Your task to perform on an android device: View the shopping cart on target.com. Image 0: 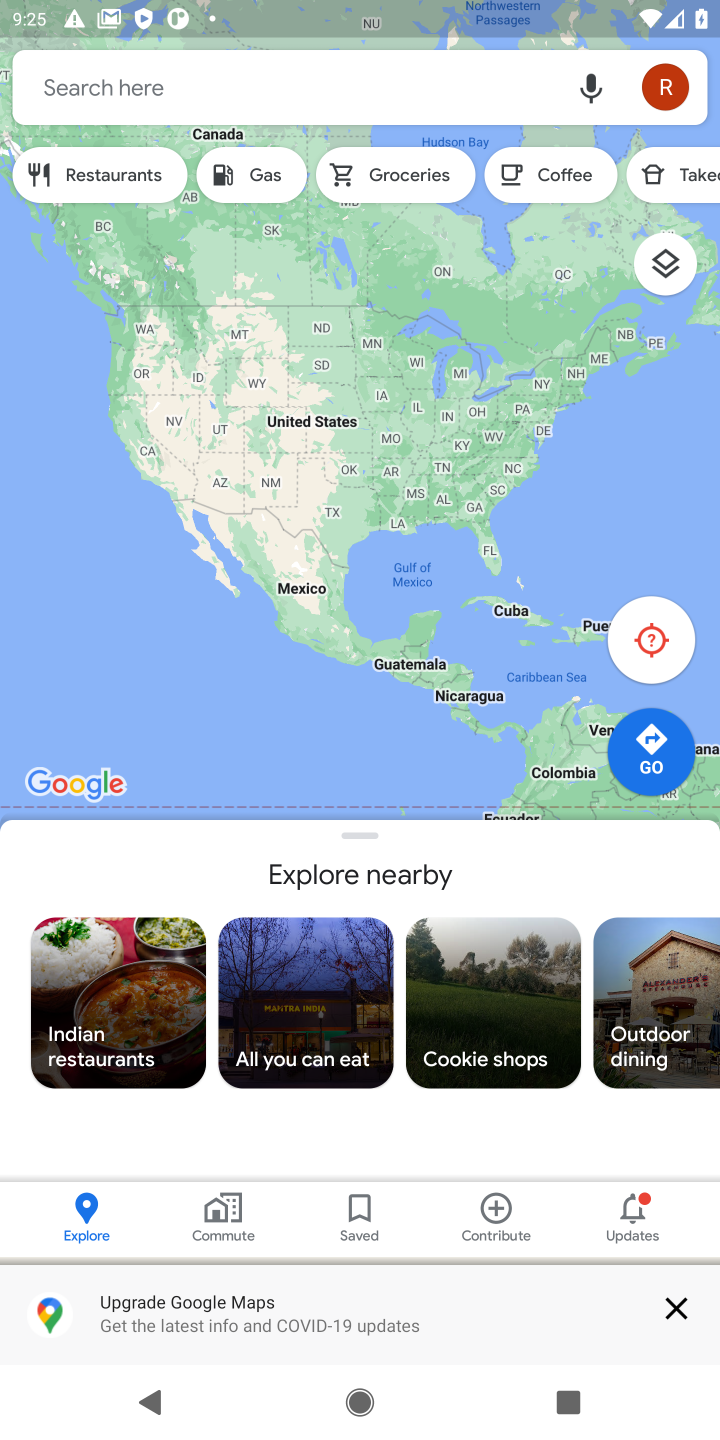
Step 0: press home button
Your task to perform on an android device: View the shopping cart on target.com. Image 1: 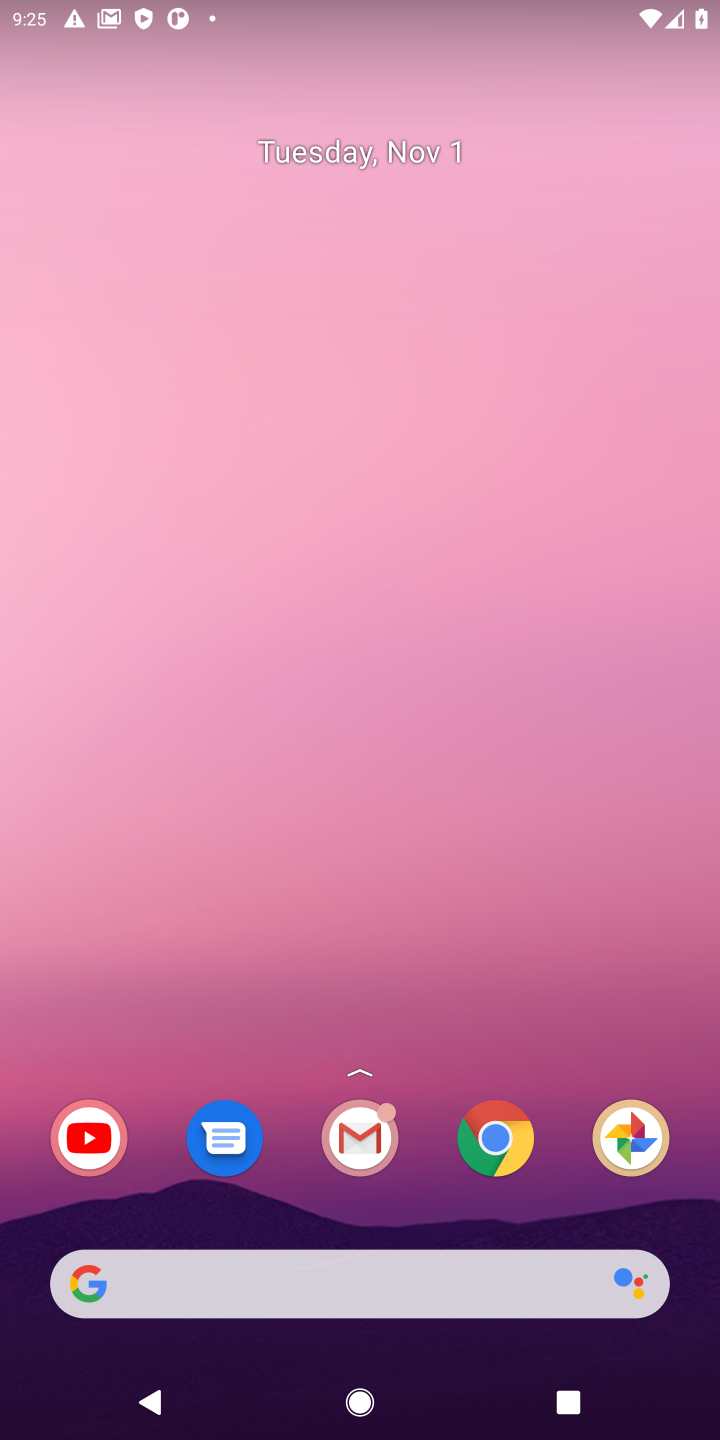
Step 1: click (494, 1143)
Your task to perform on an android device: View the shopping cart on target.com. Image 2: 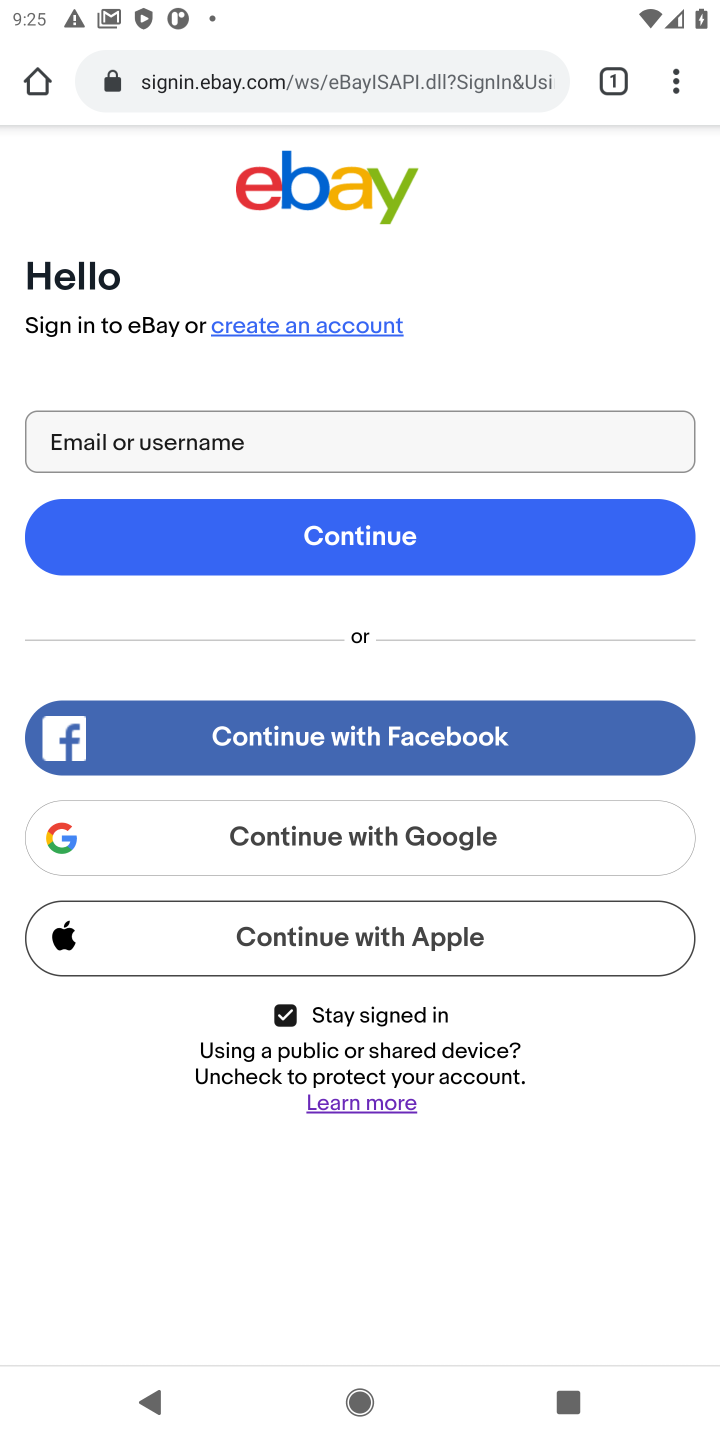
Step 2: click (294, 87)
Your task to perform on an android device: View the shopping cart on target.com. Image 3: 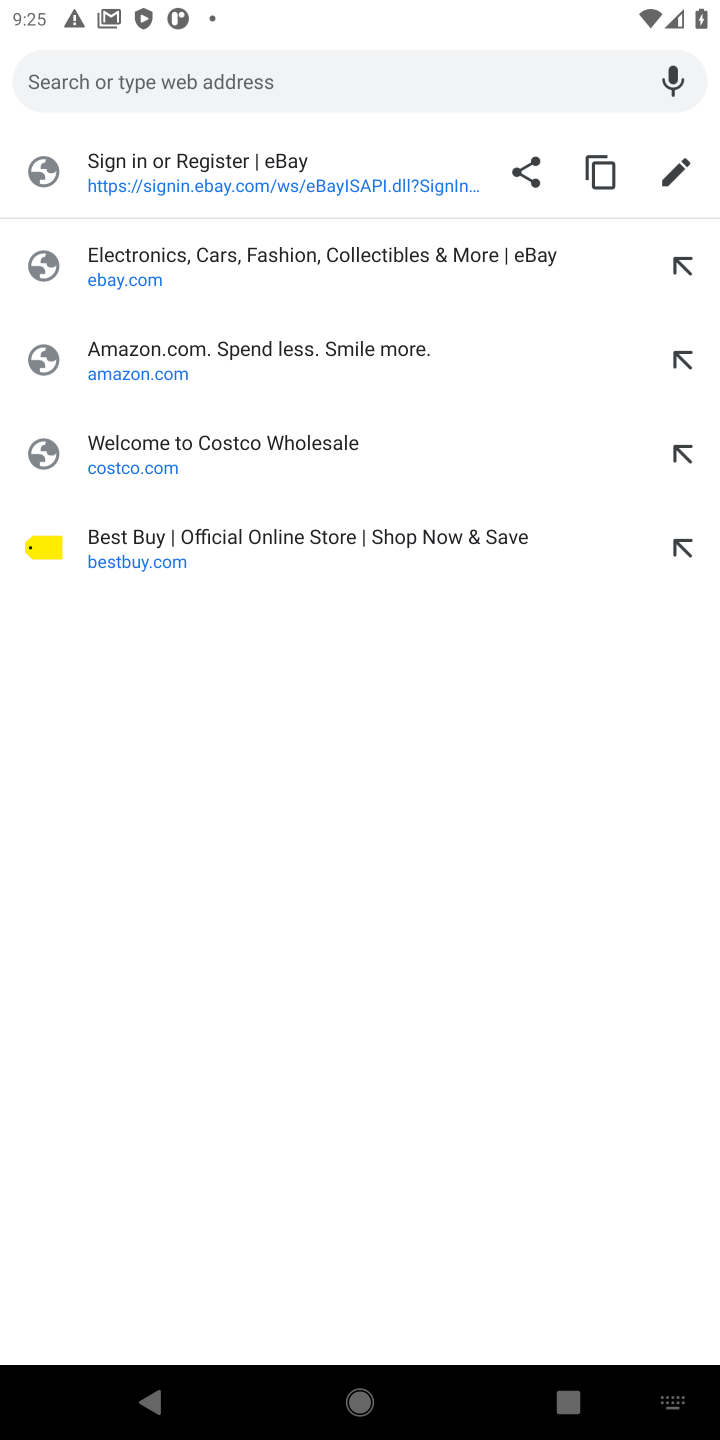
Step 3: type "target.com"
Your task to perform on an android device: View the shopping cart on target.com. Image 4: 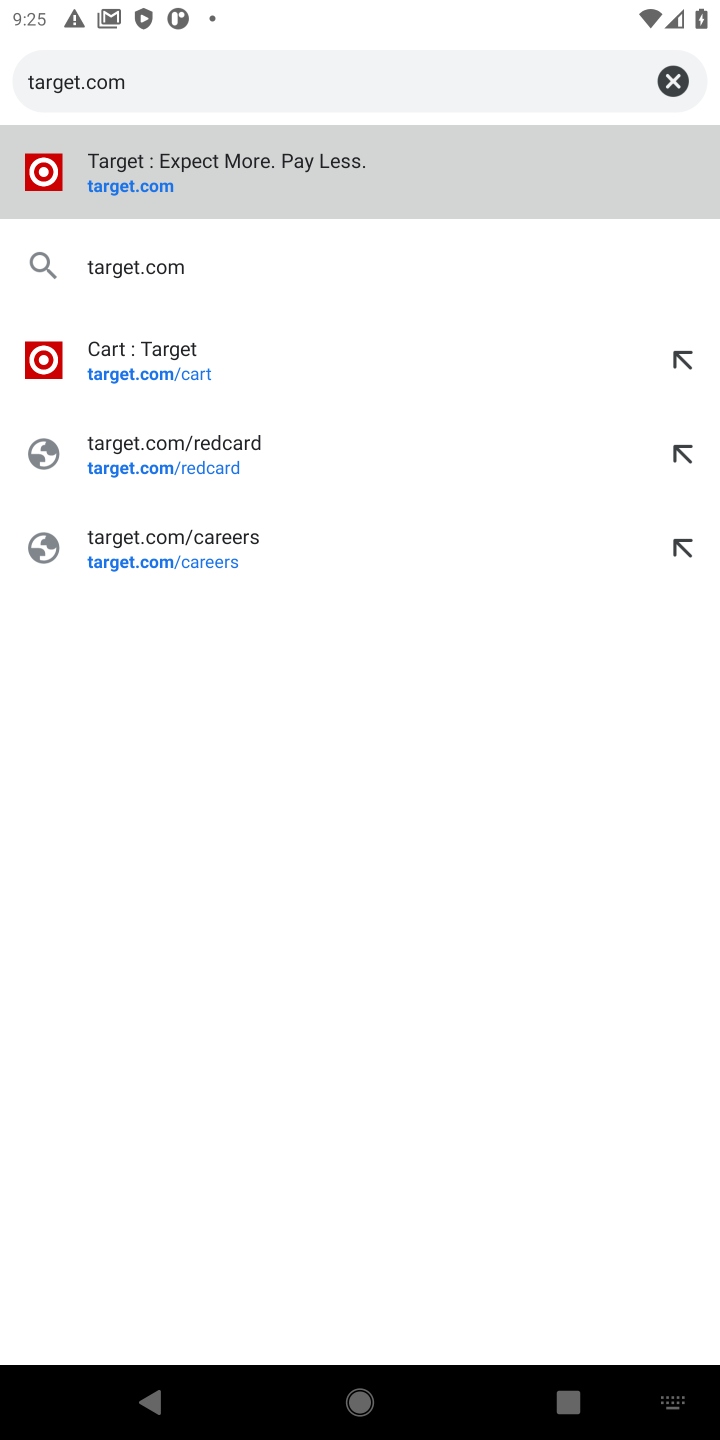
Step 4: click (143, 182)
Your task to perform on an android device: View the shopping cart on target.com. Image 5: 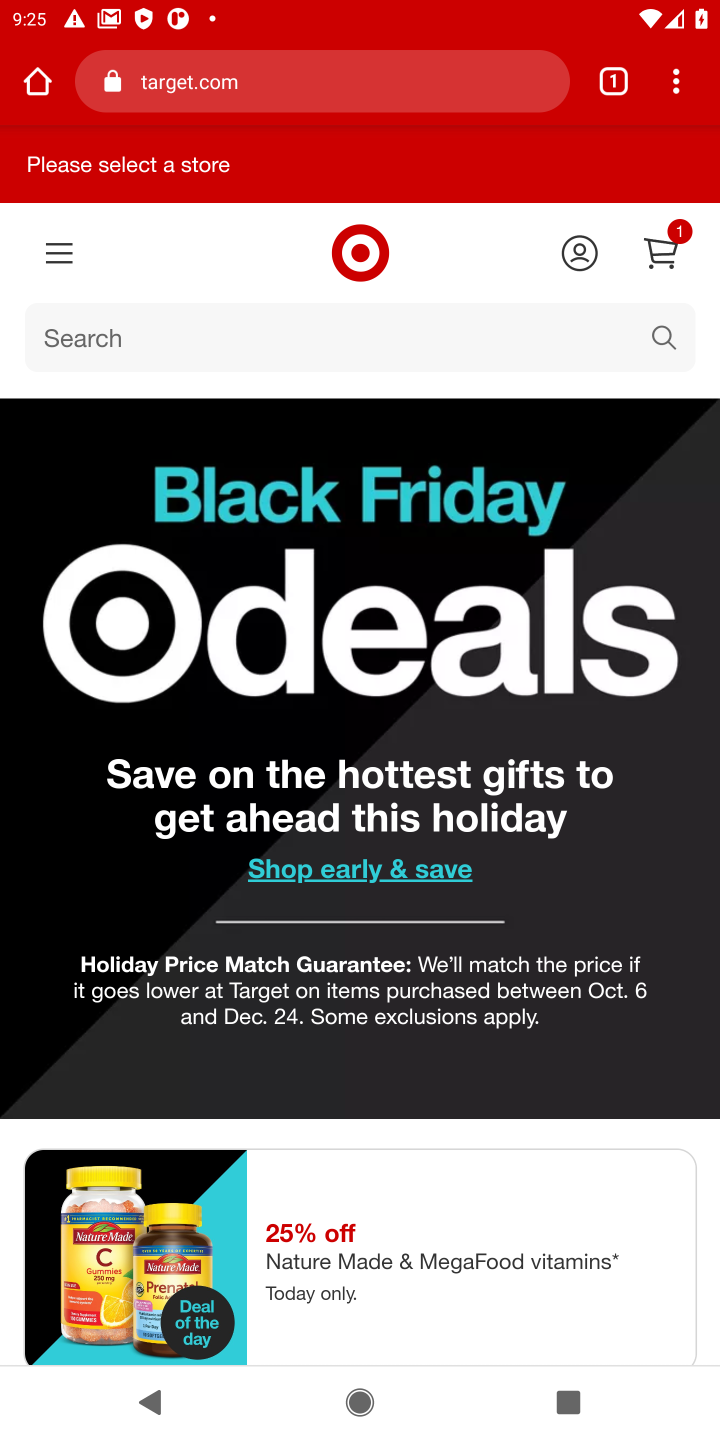
Step 5: click (652, 254)
Your task to perform on an android device: View the shopping cart on target.com. Image 6: 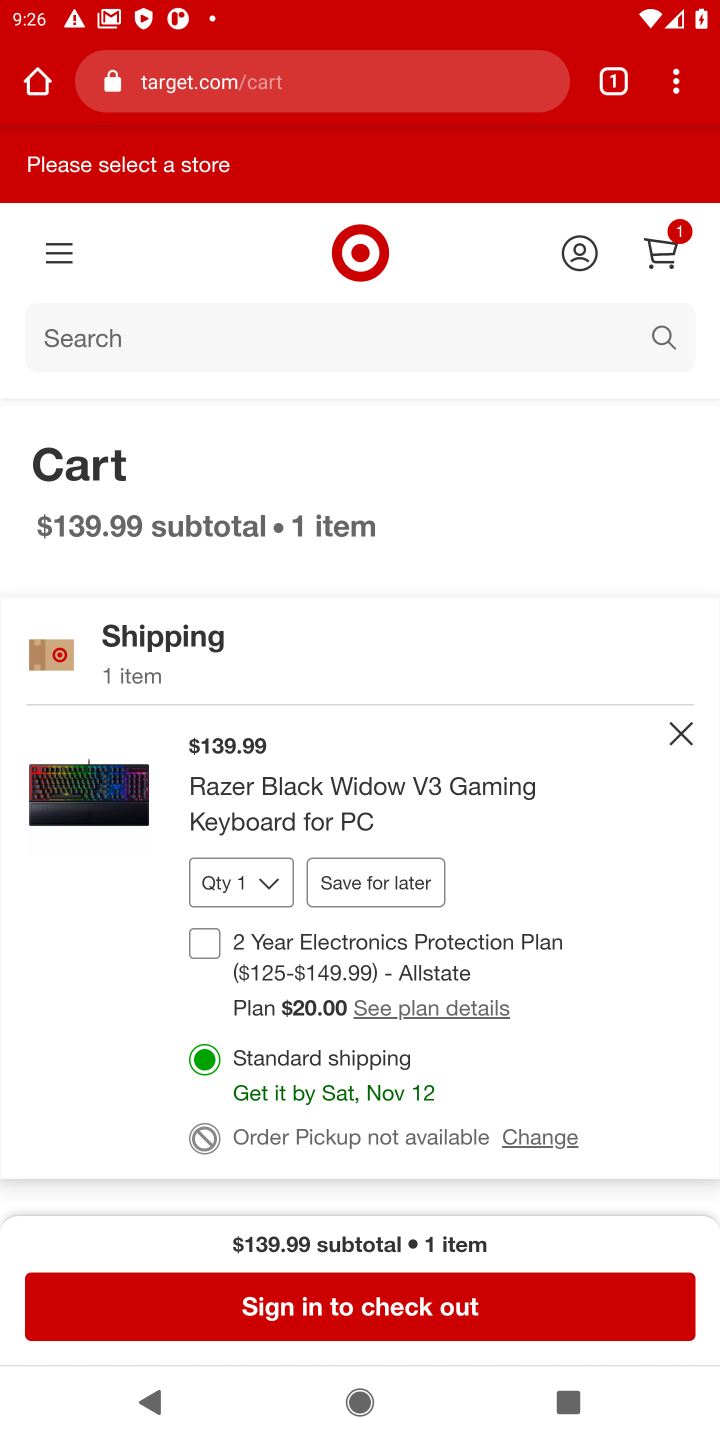
Step 6: task complete